Your task to perform on an android device: open chrome privacy settings Image 0: 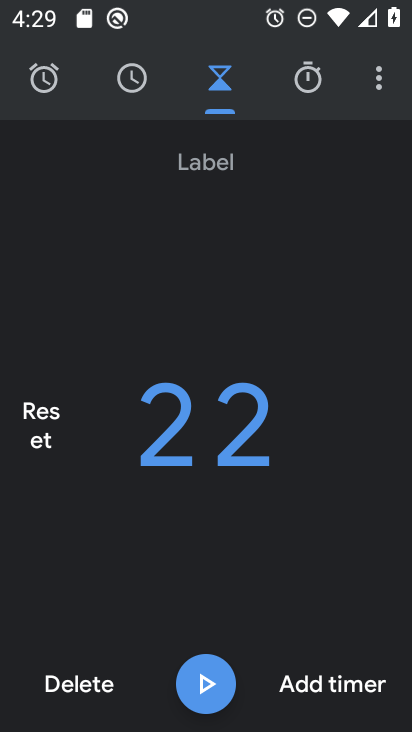
Step 0: press home button
Your task to perform on an android device: open chrome privacy settings Image 1: 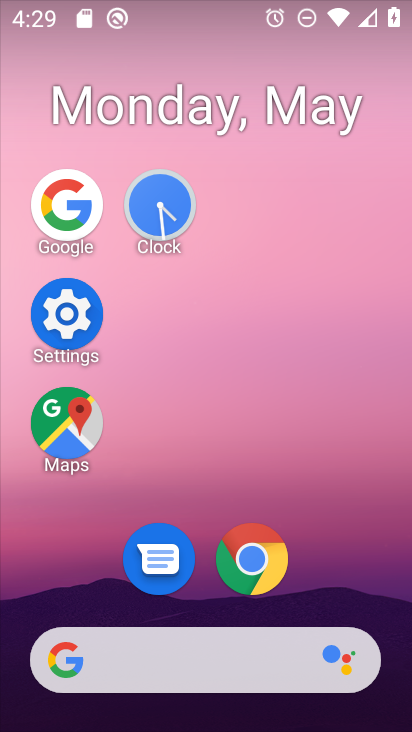
Step 1: click (251, 564)
Your task to perform on an android device: open chrome privacy settings Image 2: 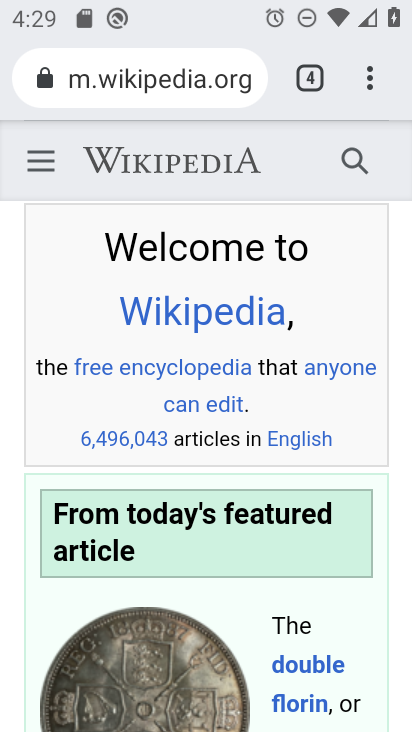
Step 2: click (379, 81)
Your task to perform on an android device: open chrome privacy settings Image 3: 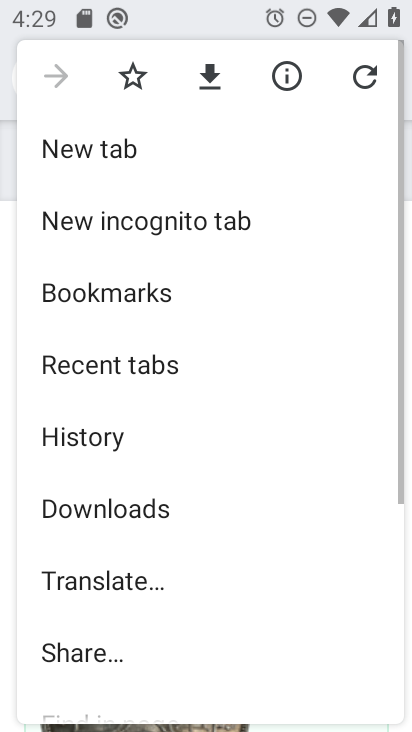
Step 3: drag from (189, 558) to (219, 158)
Your task to perform on an android device: open chrome privacy settings Image 4: 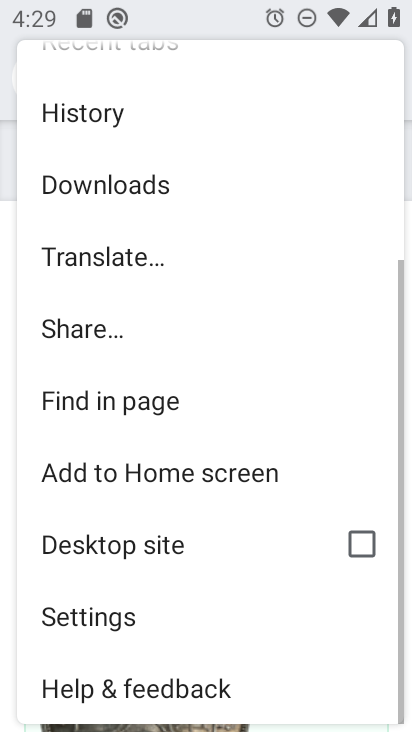
Step 4: click (182, 604)
Your task to perform on an android device: open chrome privacy settings Image 5: 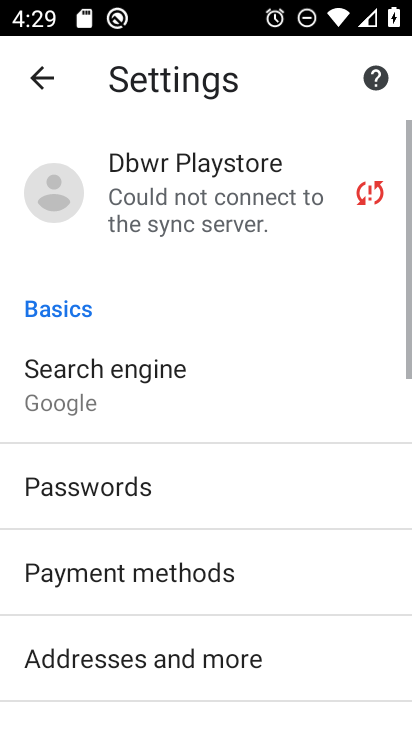
Step 5: drag from (182, 604) to (261, 252)
Your task to perform on an android device: open chrome privacy settings Image 6: 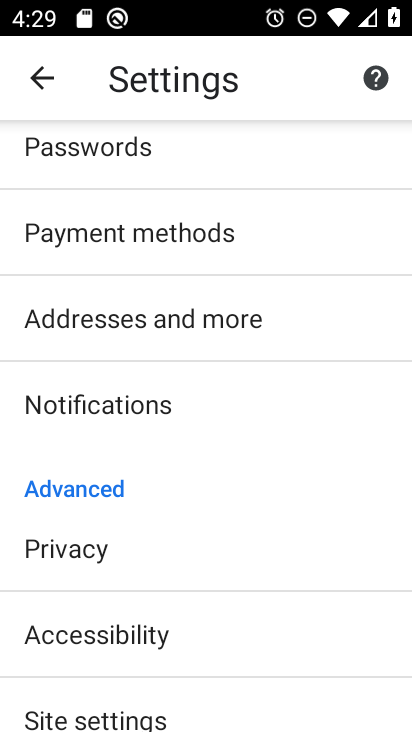
Step 6: click (179, 569)
Your task to perform on an android device: open chrome privacy settings Image 7: 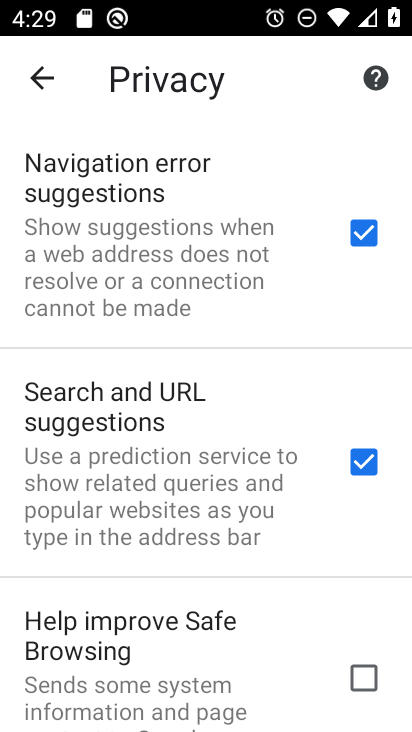
Step 7: task complete